Your task to perform on an android device: read, delete, or share a saved page in the chrome app Image 0: 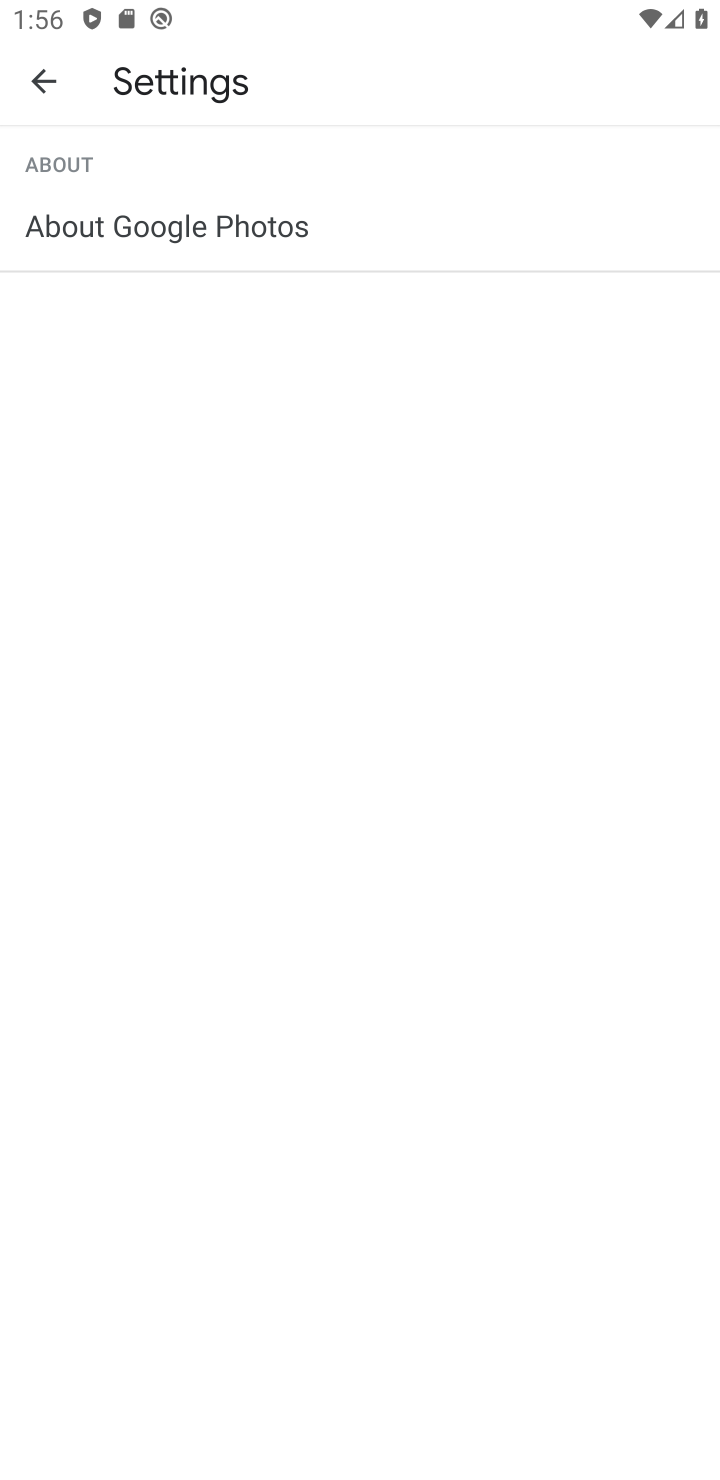
Step 0: press home button
Your task to perform on an android device: read, delete, or share a saved page in the chrome app Image 1: 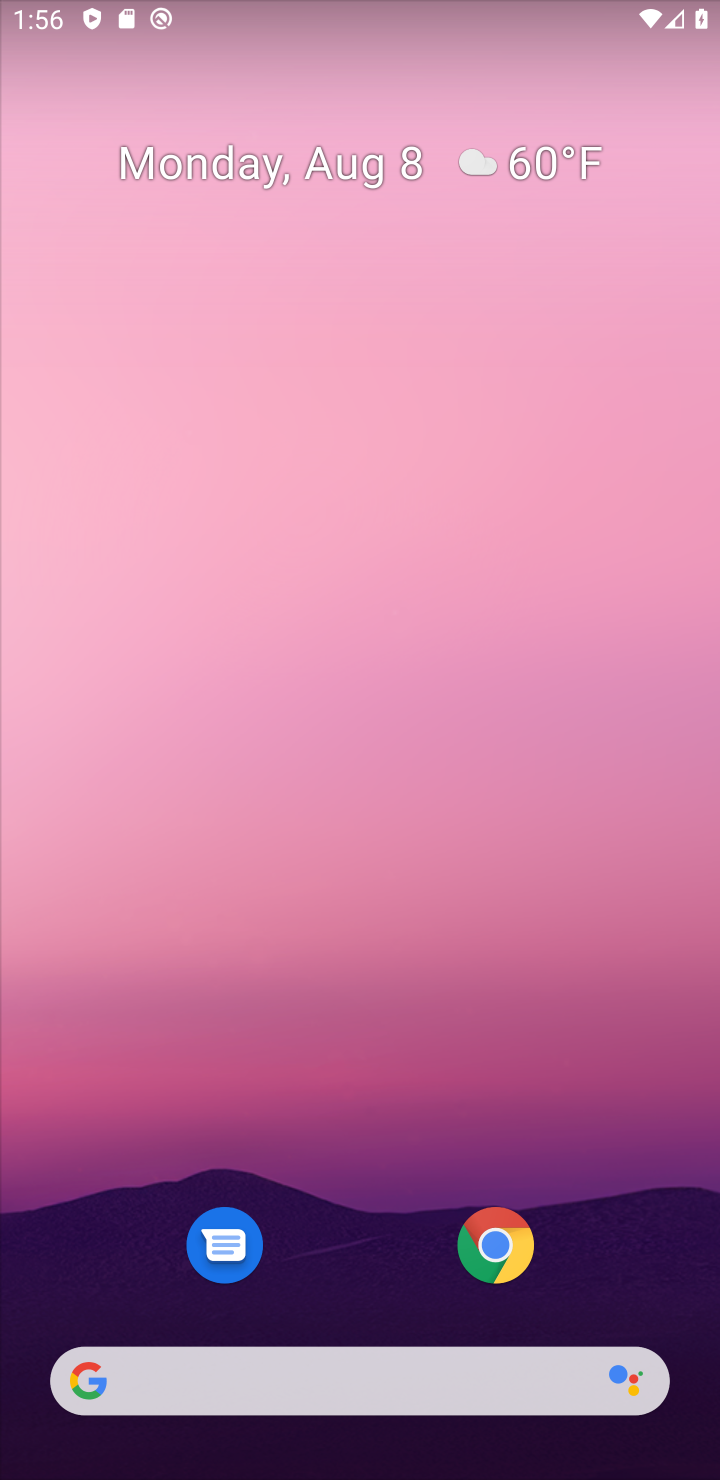
Step 1: click (497, 1249)
Your task to perform on an android device: read, delete, or share a saved page in the chrome app Image 2: 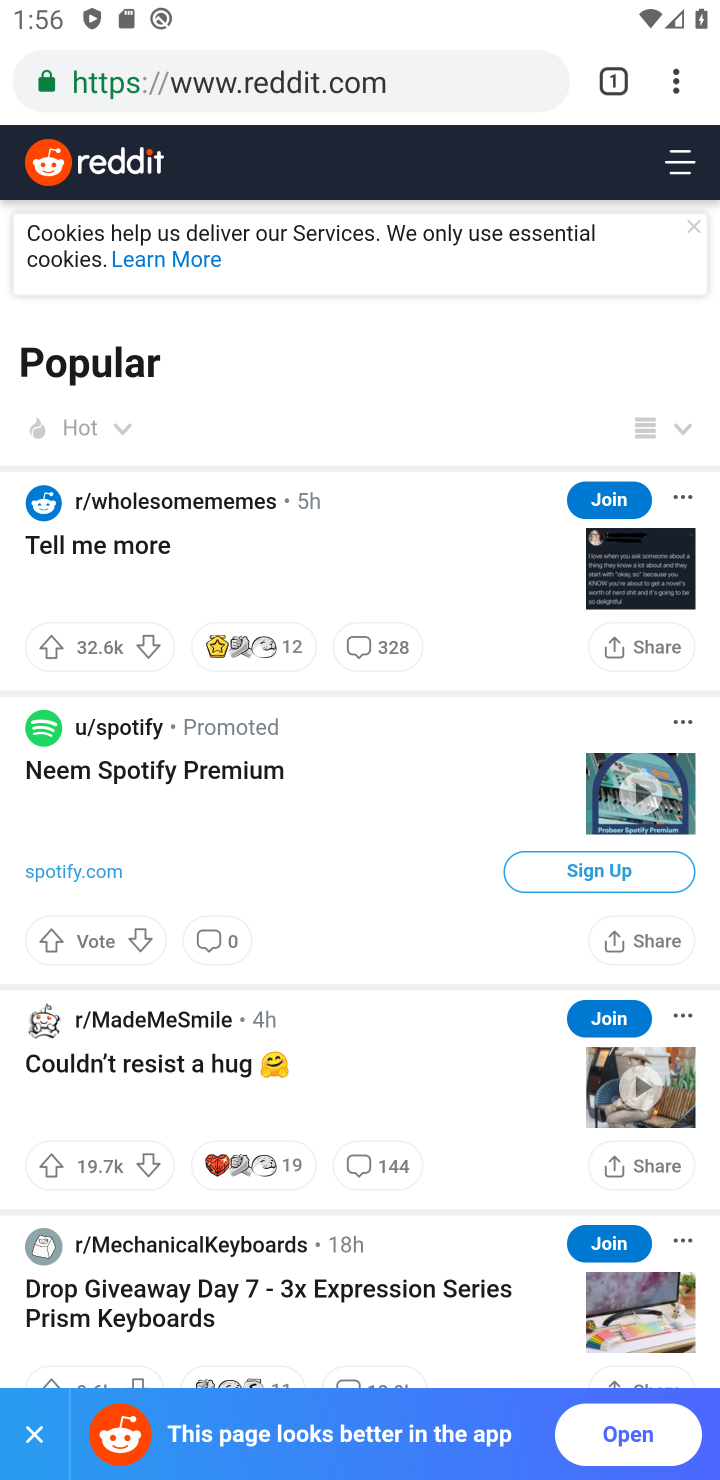
Step 2: click (674, 76)
Your task to perform on an android device: read, delete, or share a saved page in the chrome app Image 3: 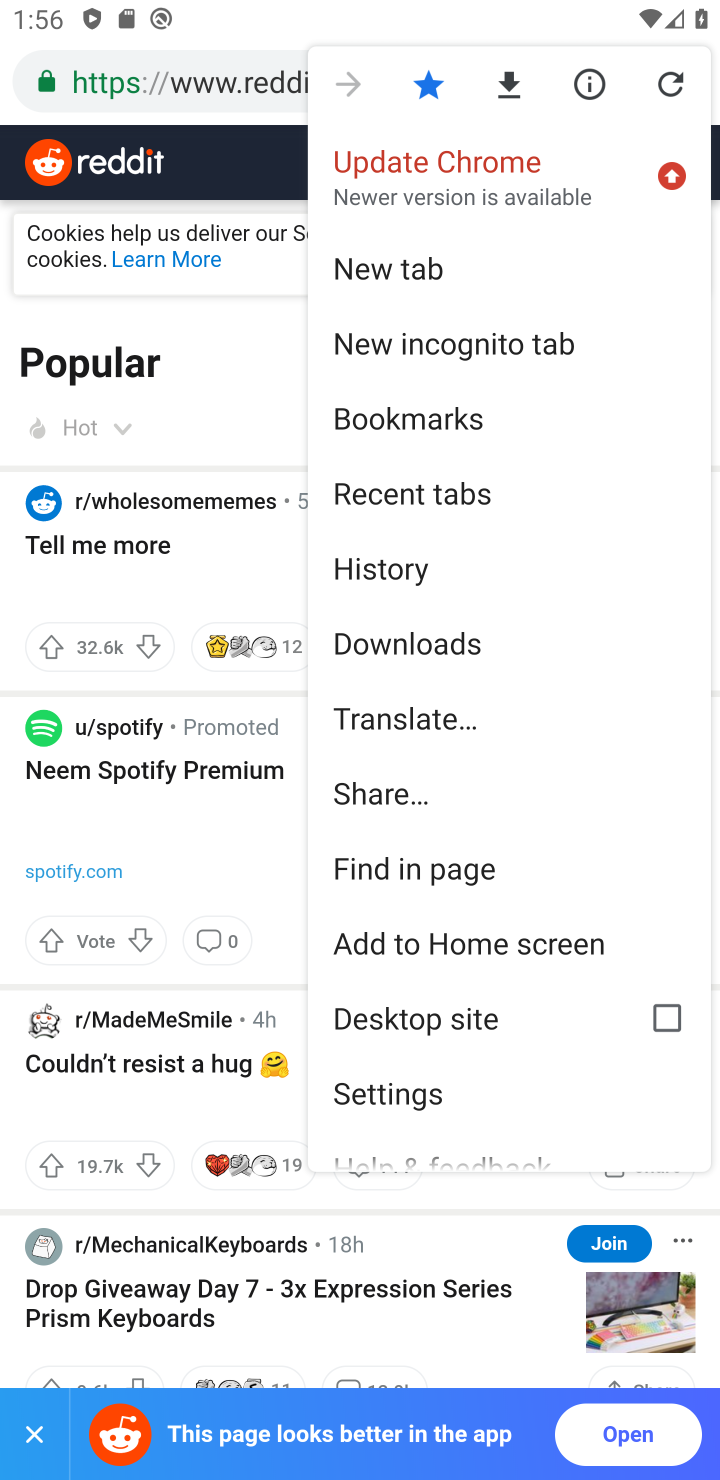
Step 3: click (430, 636)
Your task to perform on an android device: read, delete, or share a saved page in the chrome app Image 4: 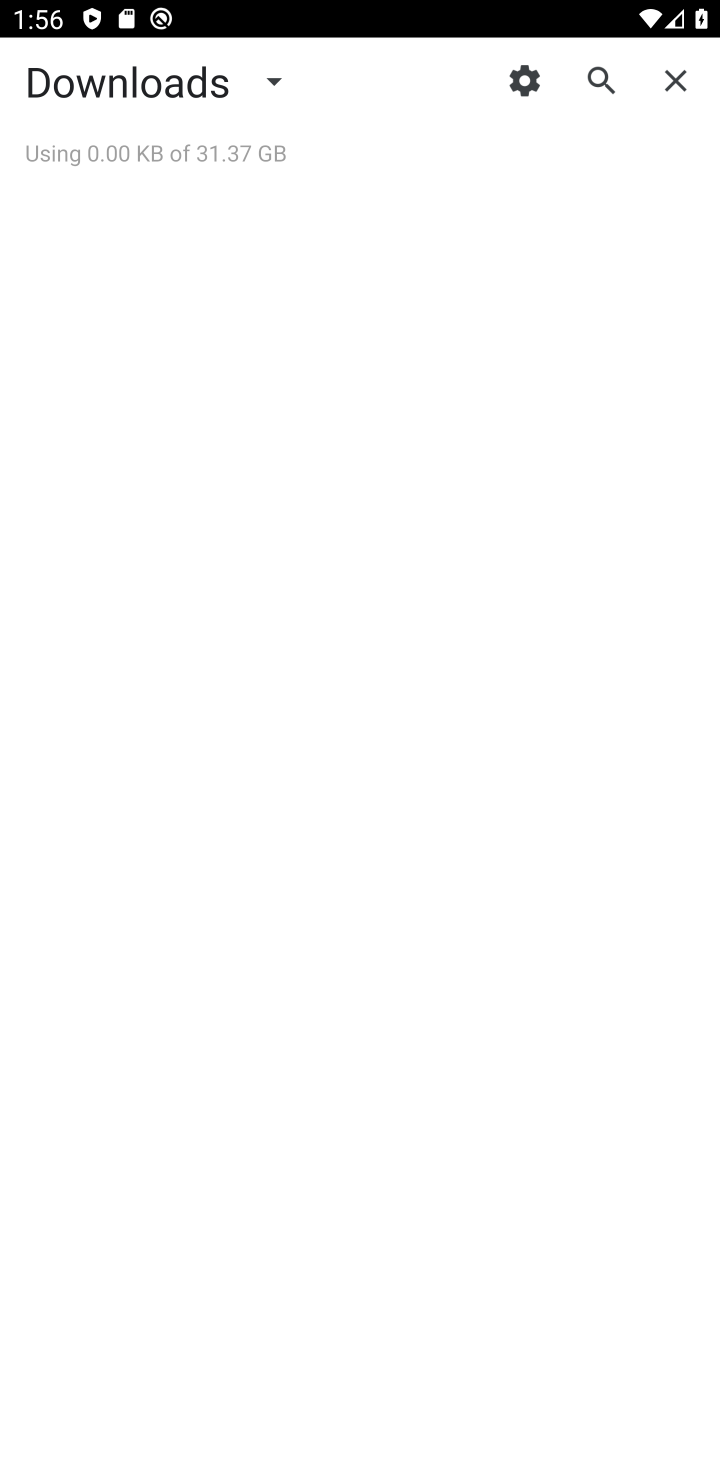
Step 4: task complete